Your task to perform on an android device: turn on wifi Image 0: 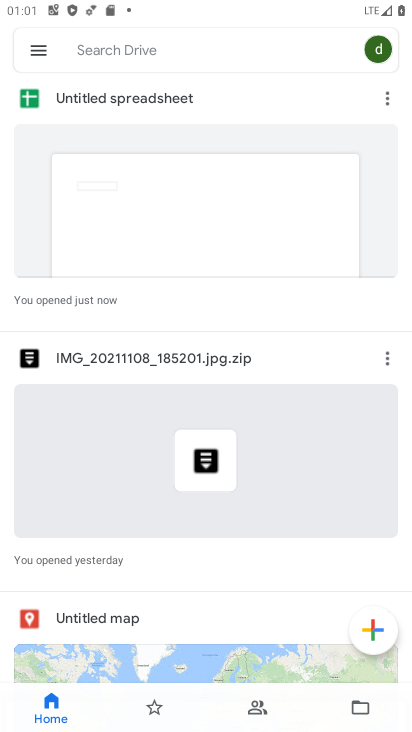
Step 0: press home button
Your task to perform on an android device: turn on wifi Image 1: 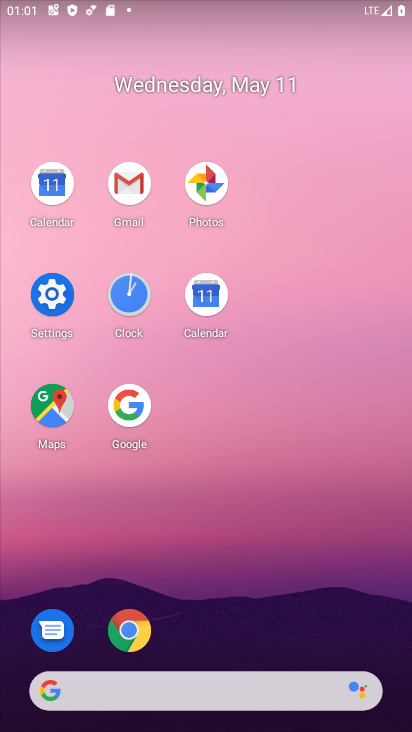
Step 1: click (58, 289)
Your task to perform on an android device: turn on wifi Image 2: 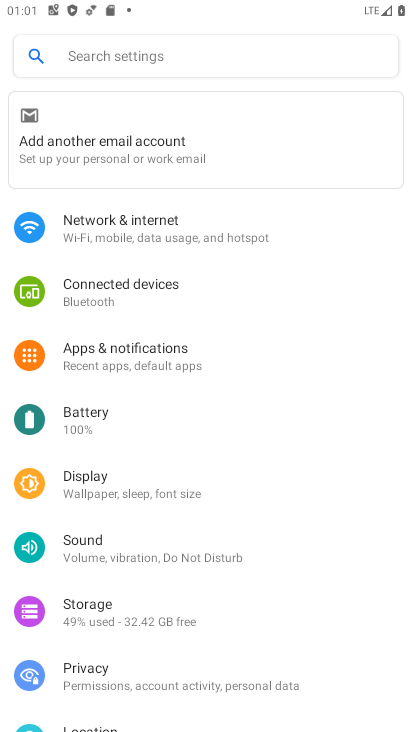
Step 2: drag from (320, 288) to (351, 551)
Your task to perform on an android device: turn on wifi Image 3: 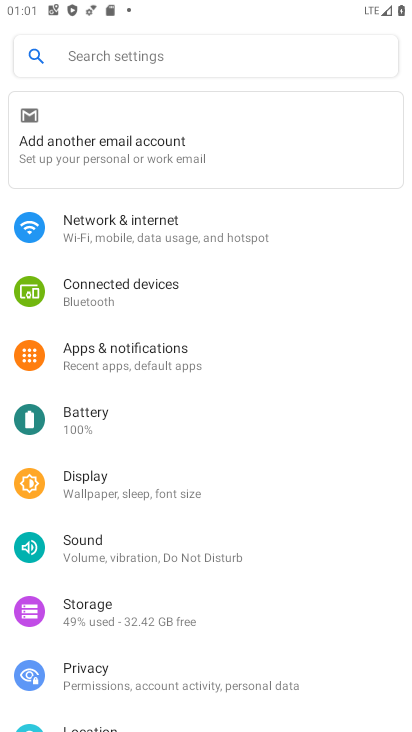
Step 3: click (173, 232)
Your task to perform on an android device: turn on wifi Image 4: 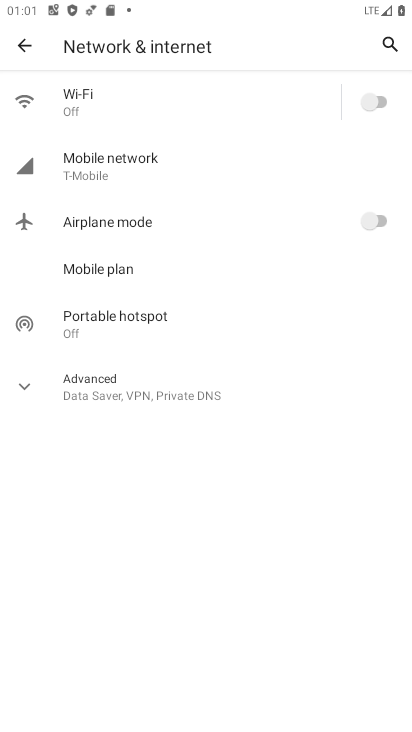
Step 4: click (395, 96)
Your task to perform on an android device: turn on wifi Image 5: 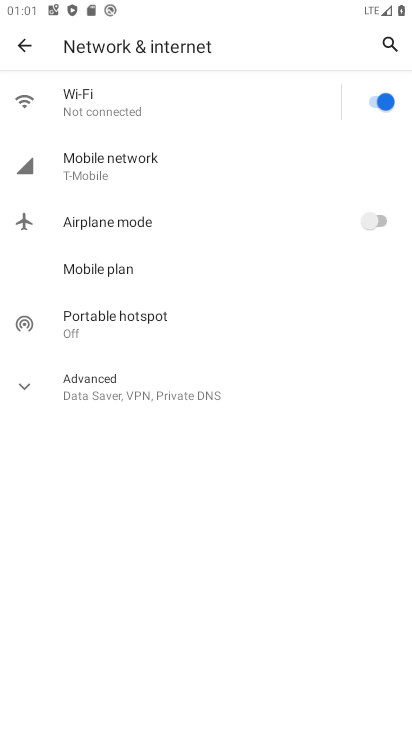
Step 5: task complete